Your task to perform on an android device: Go to location settings Image 0: 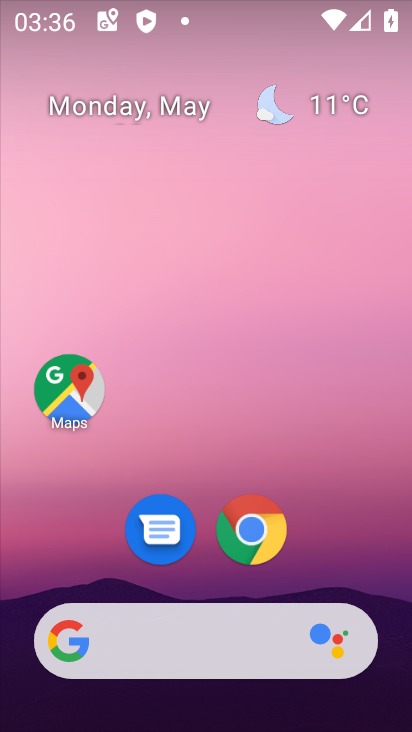
Step 0: drag from (323, 525) to (262, 120)
Your task to perform on an android device: Go to location settings Image 1: 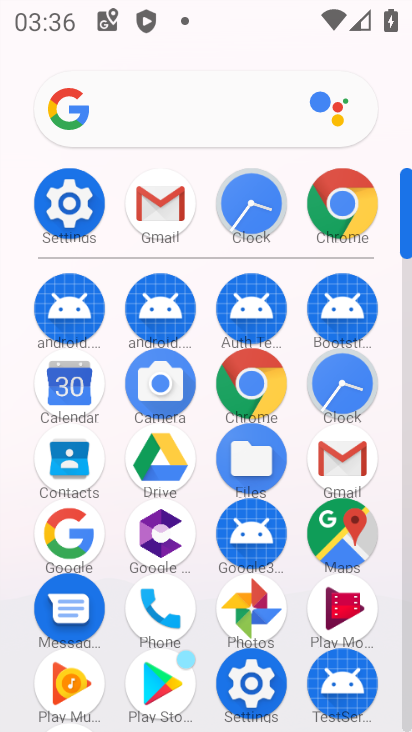
Step 1: click (55, 196)
Your task to perform on an android device: Go to location settings Image 2: 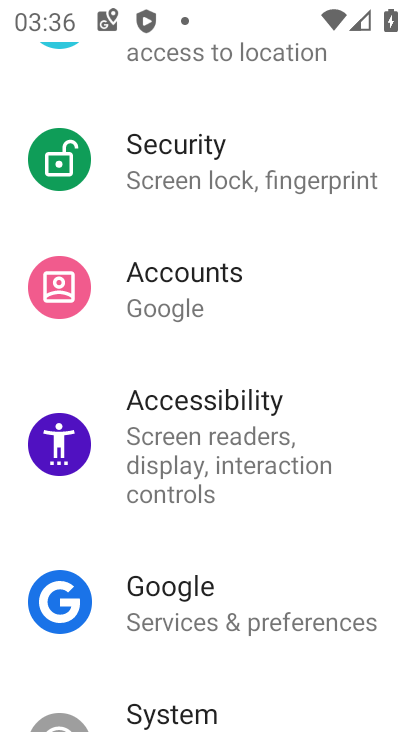
Step 2: drag from (289, 456) to (306, 200)
Your task to perform on an android device: Go to location settings Image 3: 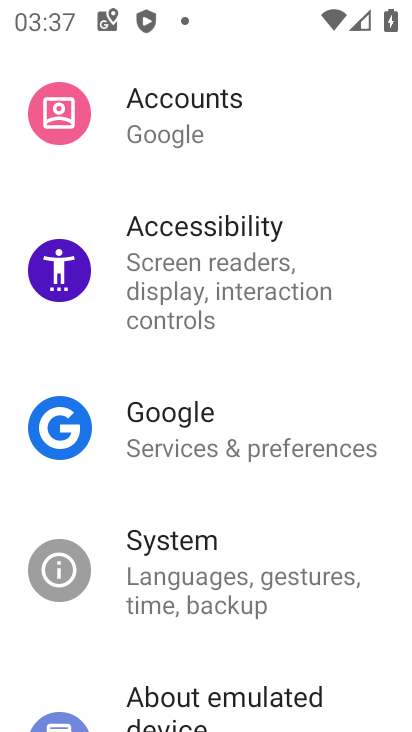
Step 3: drag from (235, 262) to (232, 40)
Your task to perform on an android device: Go to location settings Image 4: 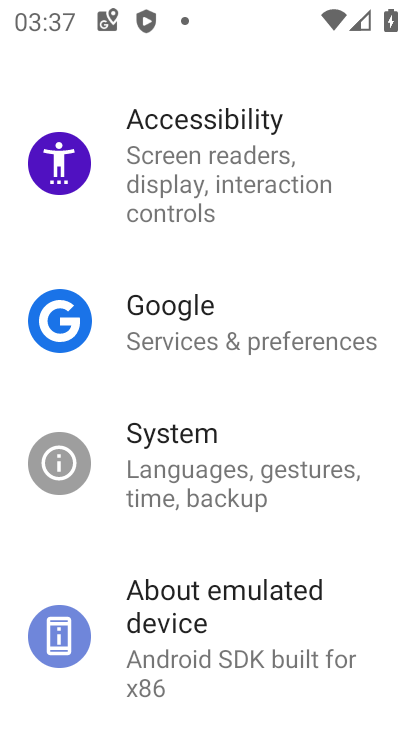
Step 4: drag from (234, 528) to (249, 625)
Your task to perform on an android device: Go to location settings Image 5: 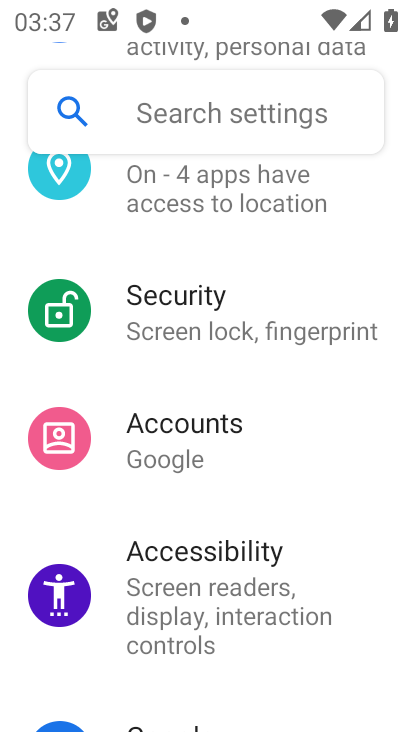
Step 5: drag from (206, 297) to (286, 676)
Your task to perform on an android device: Go to location settings Image 6: 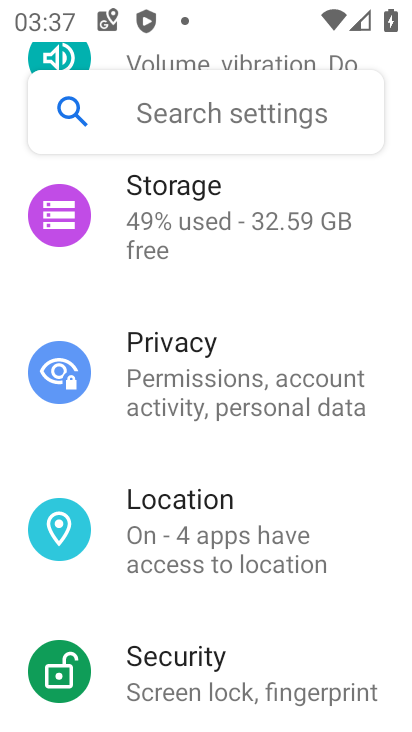
Step 6: click (218, 510)
Your task to perform on an android device: Go to location settings Image 7: 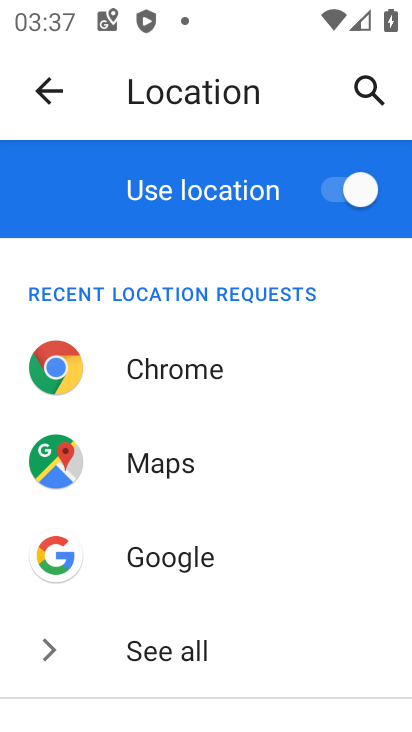
Step 7: task complete